Your task to perform on an android device: turn off translation in the chrome app Image 0: 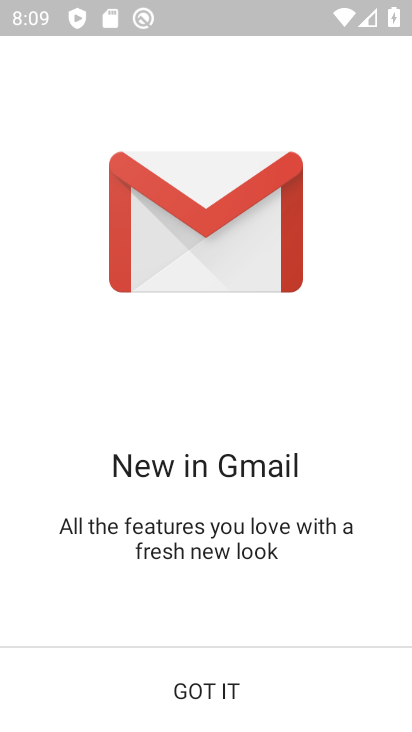
Step 0: press back button
Your task to perform on an android device: turn off translation in the chrome app Image 1: 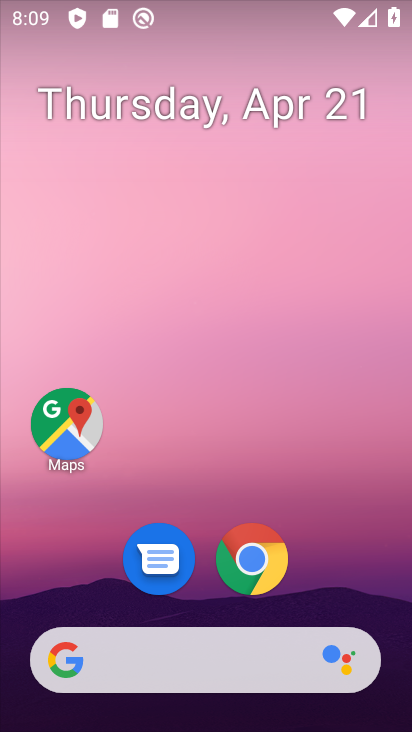
Step 1: click (246, 560)
Your task to perform on an android device: turn off translation in the chrome app Image 2: 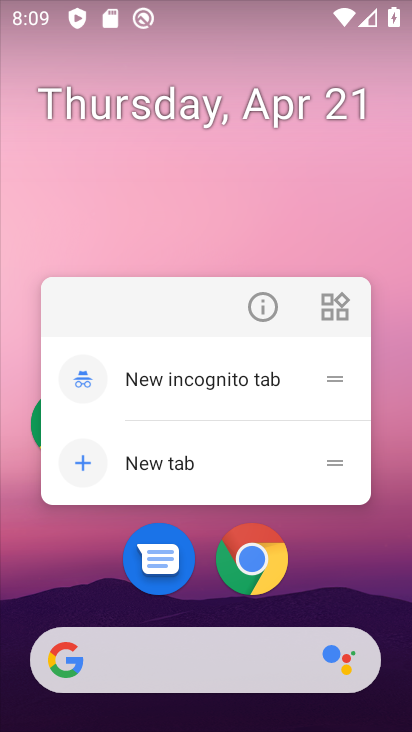
Step 2: click (263, 565)
Your task to perform on an android device: turn off translation in the chrome app Image 3: 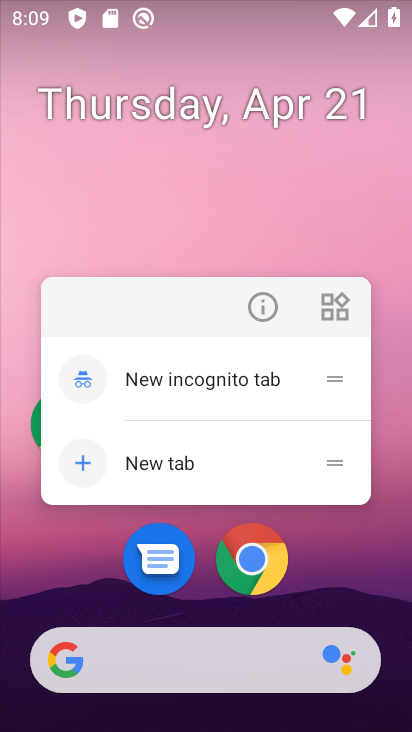
Step 3: click (253, 570)
Your task to perform on an android device: turn off translation in the chrome app Image 4: 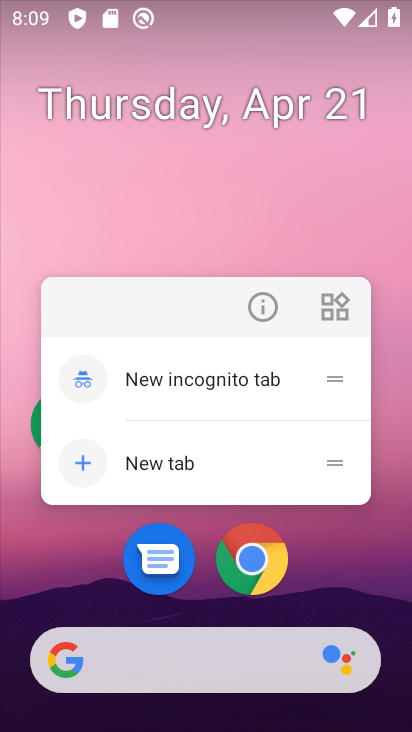
Step 4: click (260, 565)
Your task to perform on an android device: turn off translation in the chrome app Image 5: 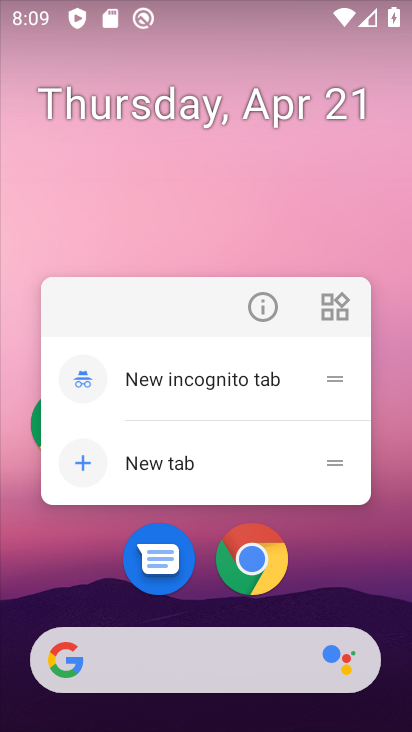
Step 5: click (260, 565)
Your task to perform on an android device: turn off translation in the chrome app Image 6: 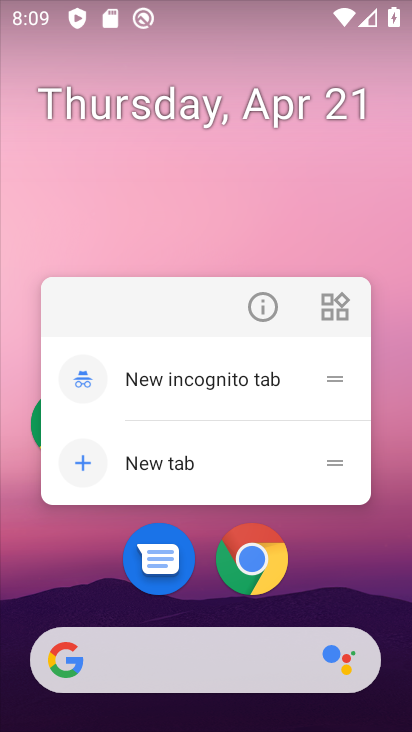
Step 6: click (260, 565)
Your task to perform on an android device: turn off translation in the chrome app Image 7: 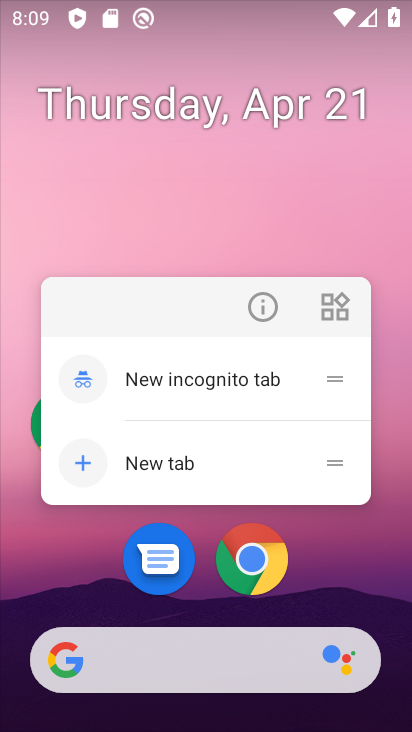
Step 7: click (263, 561)
Your task to perform on an android device: turn off translation in the chrome app Image 8: 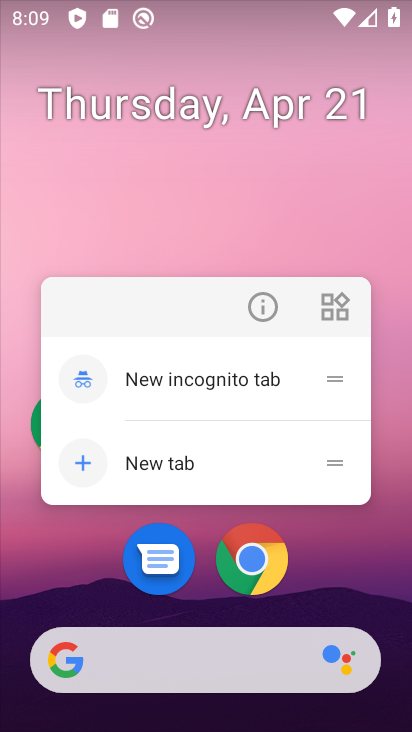
Step 8: click (263, 551)
Your task to perform on an android device: turn off translation in the chrome app Image 9: 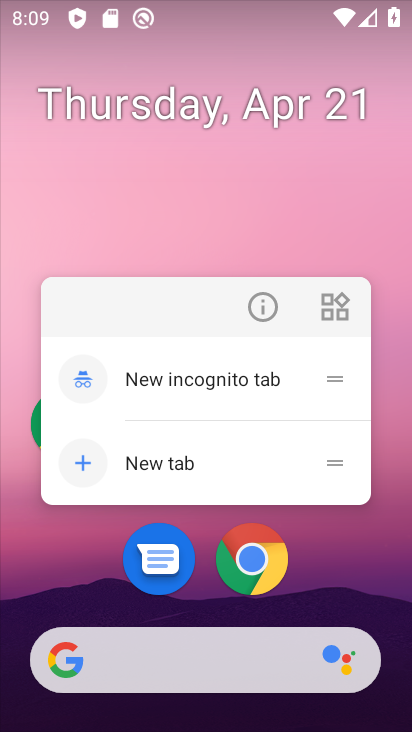
Step 9: click (236, 534)
Your task to perform on an android device: turn off translation in the chrome app Image 10: 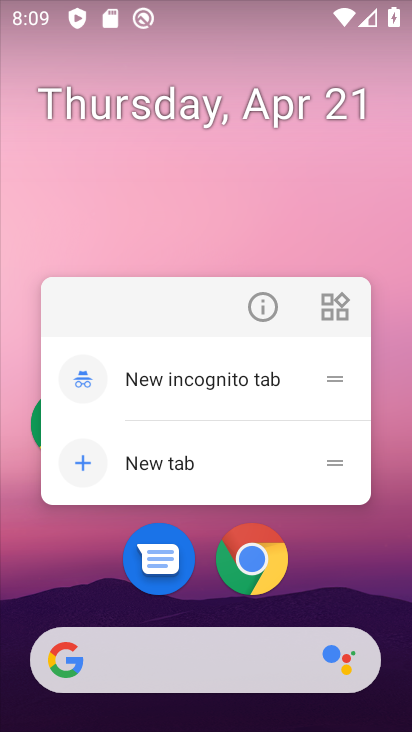
Step 10: click (281, 574)
Your task to perform on an android device: turn off translation in the chrome app Image 11: 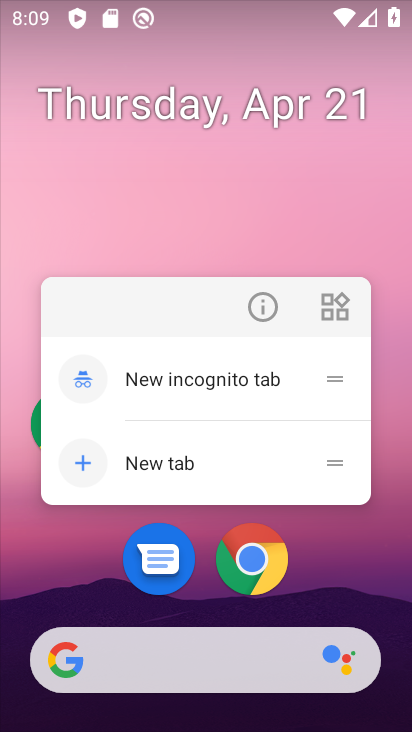
Step 11: click (278, 560)
Your task to perform on an android device: turn off translation in the chrome app Image 12: 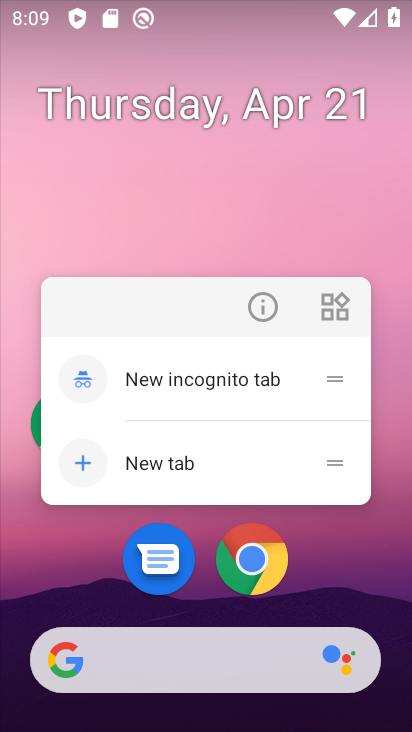
Step 12: click (258, 583)
Your task to perform on an android device: turn off translation in the chrome app Image 13: 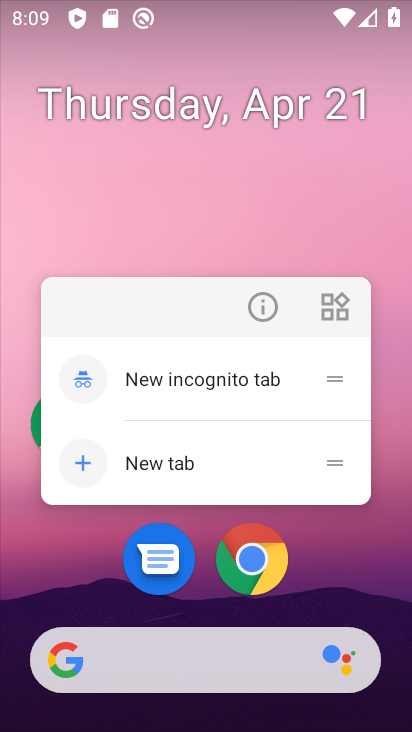
Step 13: click (248, 576)
Your task to perform on an android device: turn off translation in the chrome app Image 14: 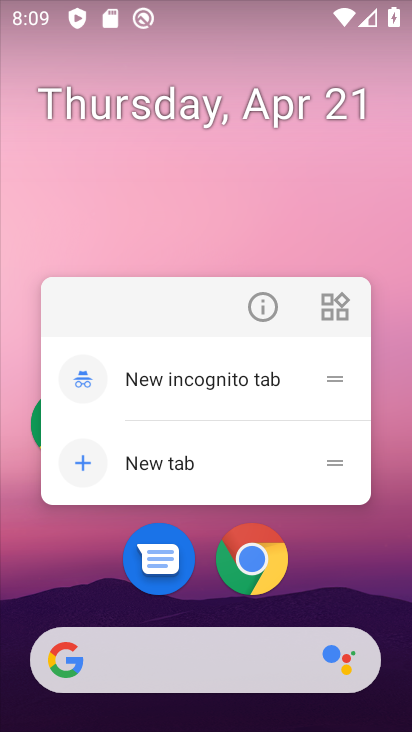
Step 14: click (258, 547)
Your task to perform on an android device: turn off translation in the chrome app Image 15: 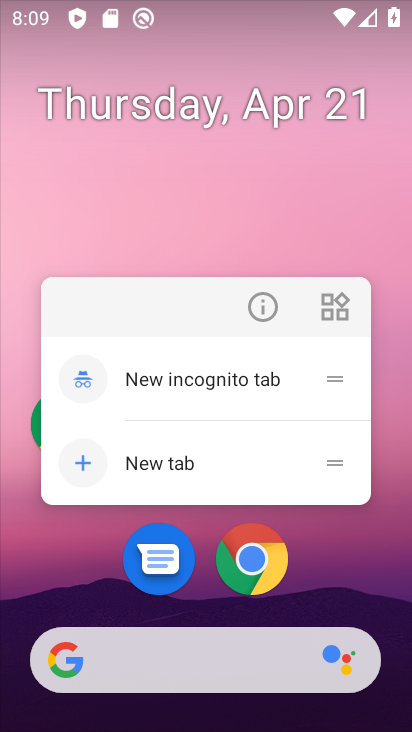
Step 15: click (245, 568)
Your task to perform on an android device: turn off translation in the chrome app Image 16: 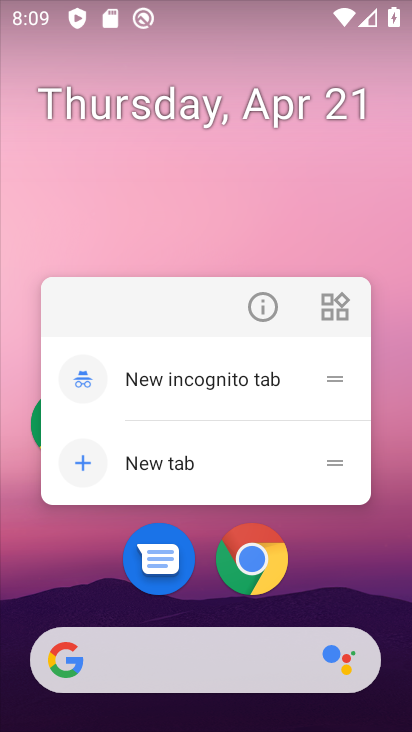
Step 16: click (243, 548)
Your task to perform on an android device: turn off translation in the chrome app Image 17: 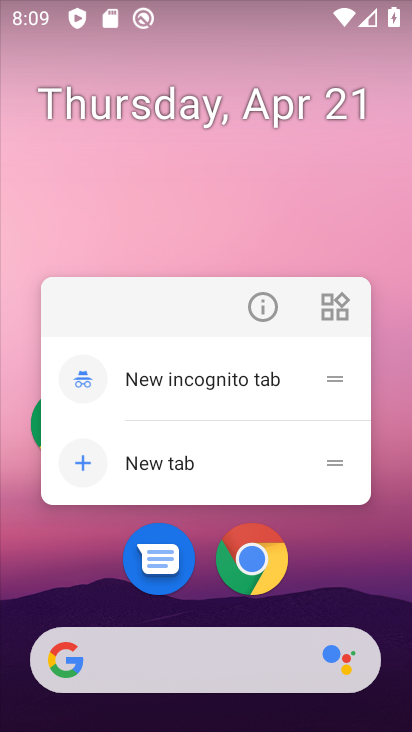
Step 17: click (232, 537)
Your task to perform on an android device: turn off translation in the chrome app Image 18: 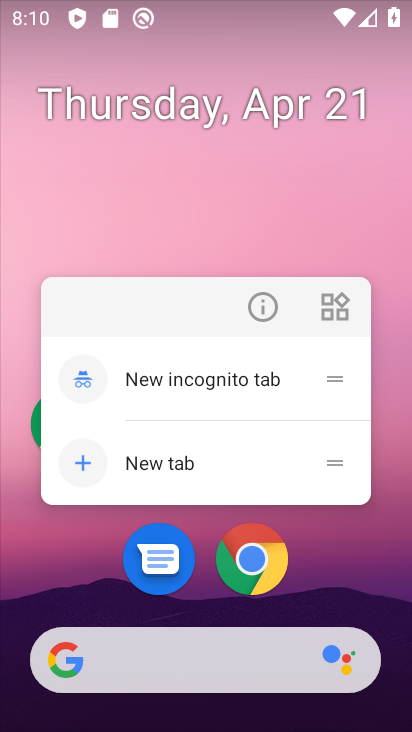
Step 18: click (244, 558)
Your task to perform on an android device: turn off translation in the chrome app Image 19: 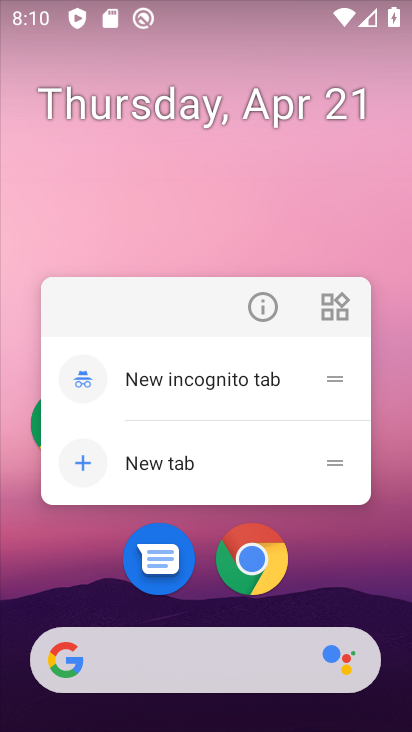
Step 19: click (274, 568)
Your task to perform on an android device: turn off translation in the chrome app Image 20: 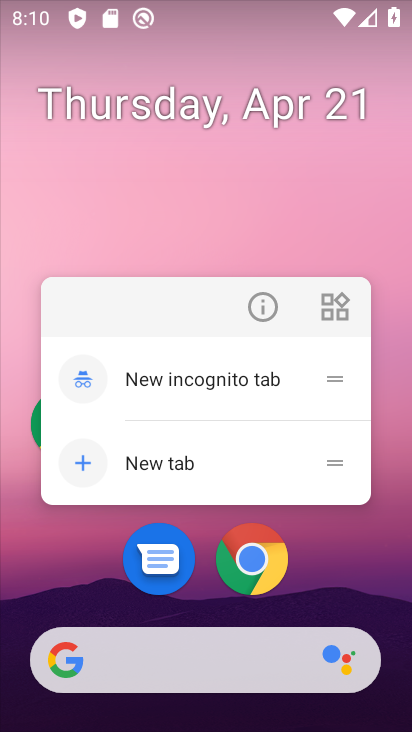
Step 20: click (271, 551)
Your task to perform on an android device: turn off translation in the chrome app Image 21: 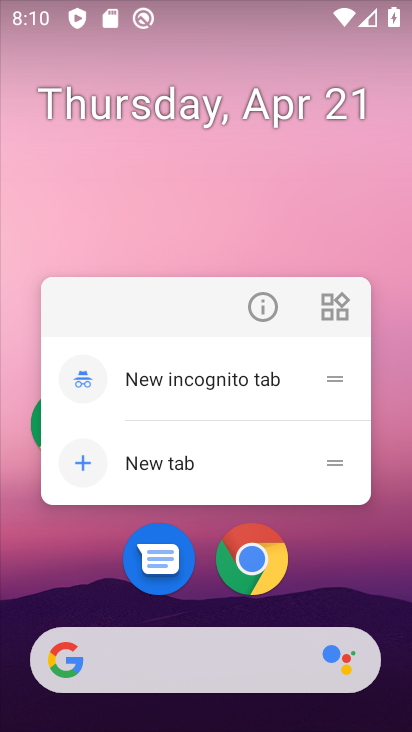
Step 21: click (251, 565)
Your task to perform on an android device: turn off translation in the chrome app Image 22: 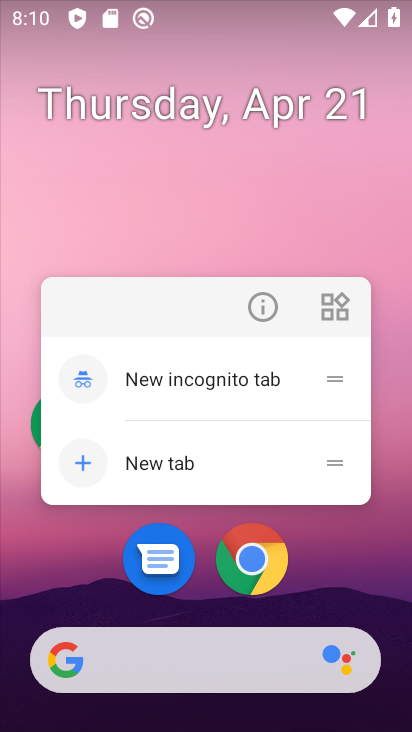
Step 22: drag from (305, 613) to (406, 544)
Your task to perform on an android device: turn off translation in the chrome app Image 23: 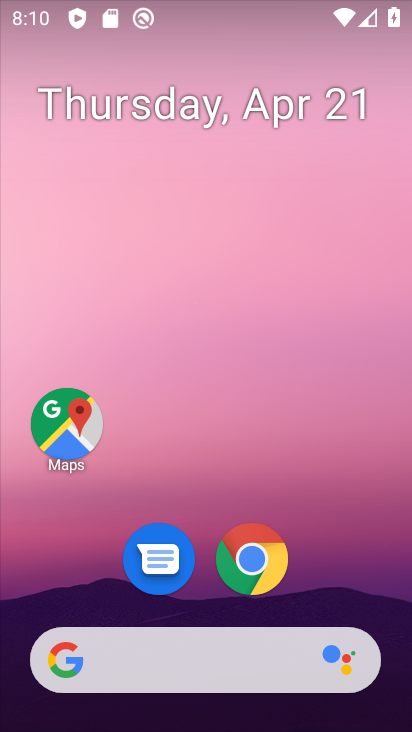
Step 23: drag from (299, 608) to (407, 381)
Your task to perform on an android device: turn off translation in the chrome app Image 24: 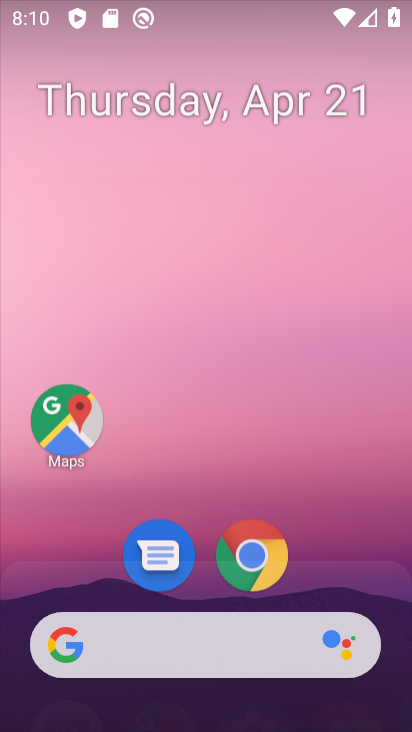
Step 24: click (336, 216)
Your task to perform on an android device: turn off translation in the chrome app Image 25: 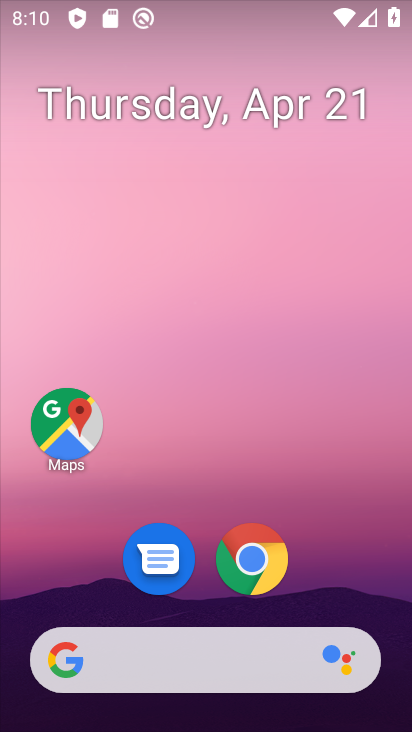
Step 25: click (254, 568)
Your task to perform on an android device: turn off translation in the chrome app Image 26: 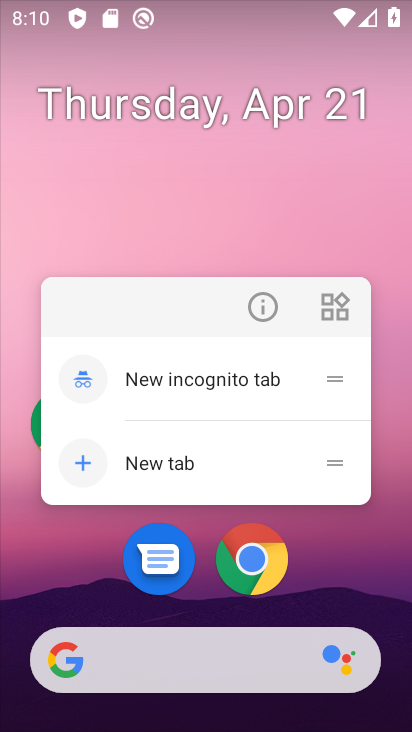
Step 26: drag from (316, 598) to (399, 10)
Your task to perform on an android device: turn off translation in the chrome app Image 27: 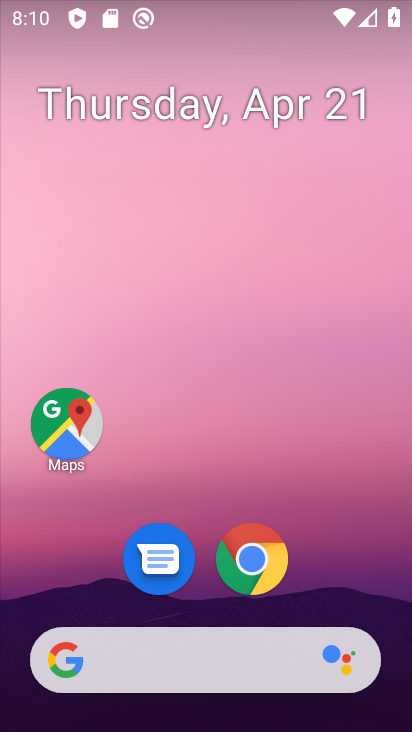
Step 27: drag from (343, 605) to (390, 291)
Your task to perform on an android device: turn off translation in the chrome app Image 28: 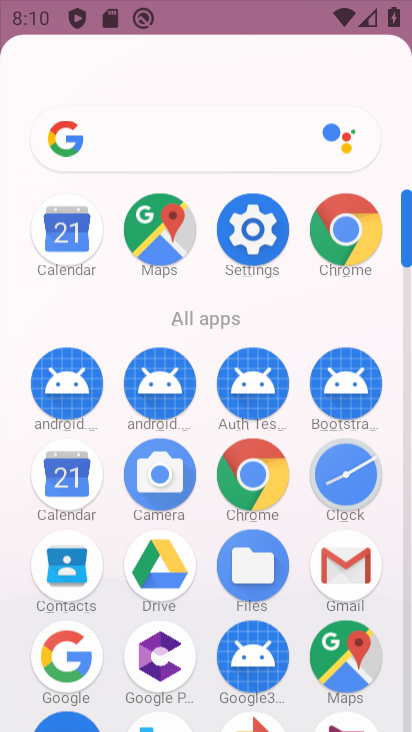
Step 28: click (358, 218)
Your task to perform on an android device: turn off translation in the chrome app Image 29: 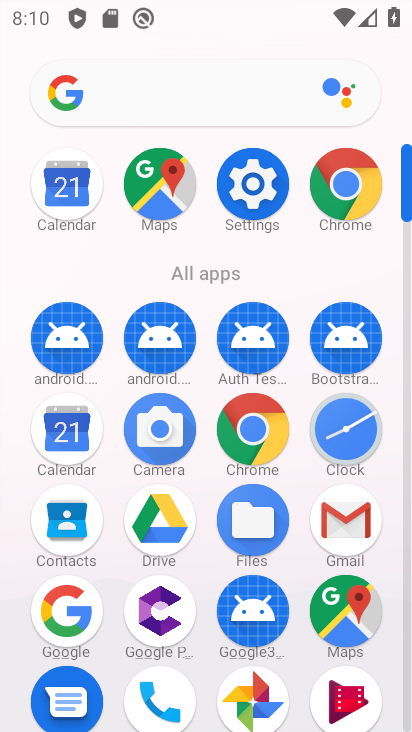
Step 29: click (354, 191)
Your task to perform on an android device: turn off translation in the chrome app Image 30: 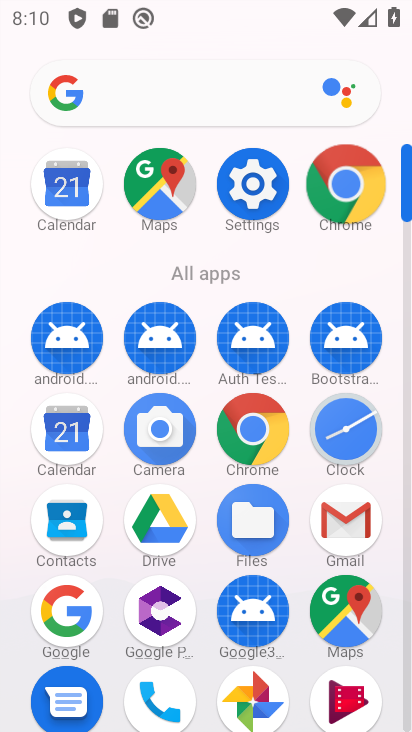
Step 30: click (358, 197)
Your task to perform on an android device: turn off translation in the chrome app Image 31: 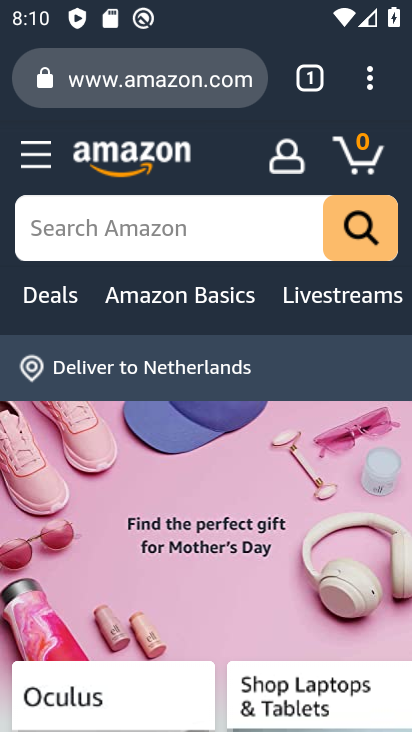
Step 31: drag from (365, 88) to (205, 630)
Your task to perform on an android device: turn off translation in the chrome app Image 32: 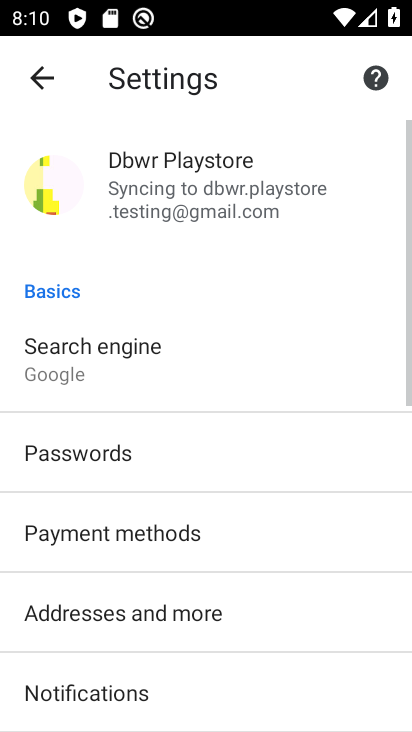
Step 32: drag from (188, 628) to (231, 298)
Your task to perform on an android device: turn off translation in the chrome app Image 33: 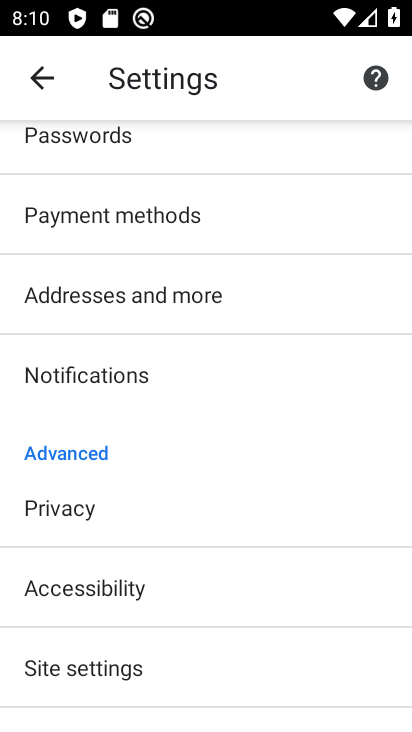
Step 33: drag from (204, 592) to (257, 227)
Your task to perform on an android device: turn off translation in the chrome app Image 34: 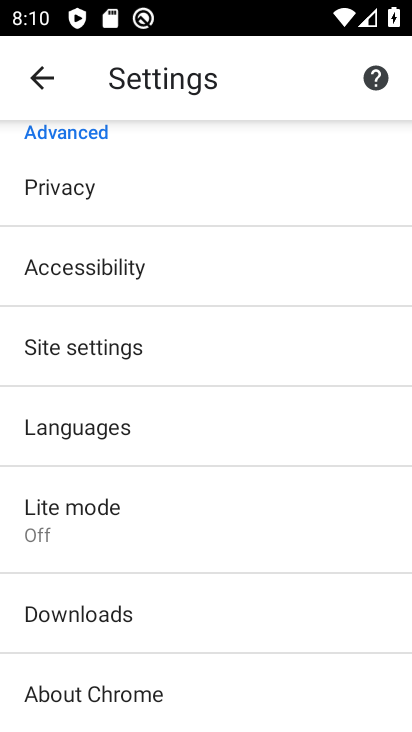
Step 34: click (162, 428)
Your task to perform on an android device: turn off translation in the chrome app Image 35: 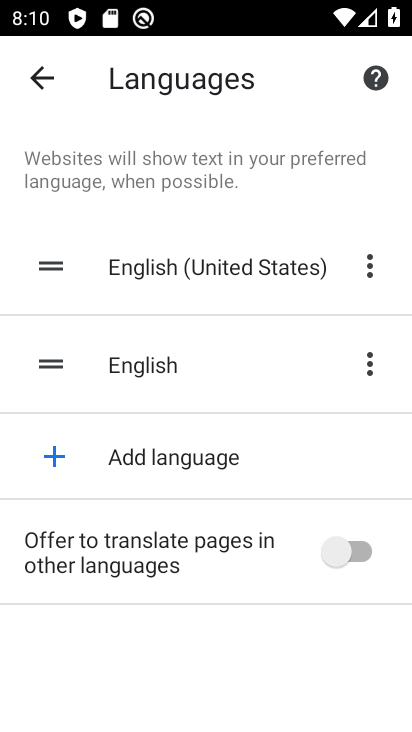
Step 35: task complete